Your task to perform on an android device: Search for pizza restaurants on Maps Image 0: 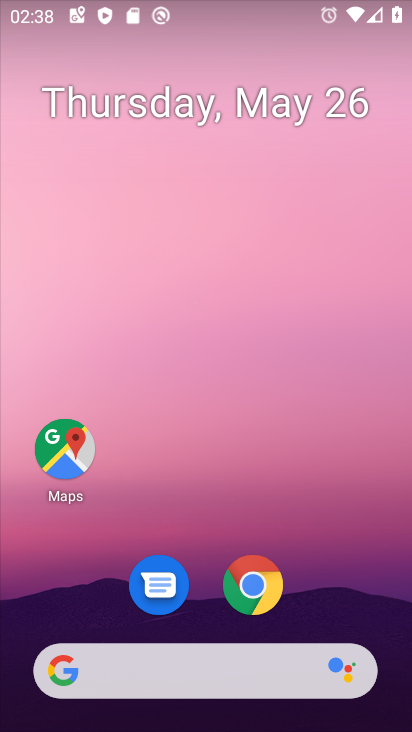
Step 0: click (68, 442)
Your task to perform on an android device: Search for pizza restaurants on Maps Image 1: 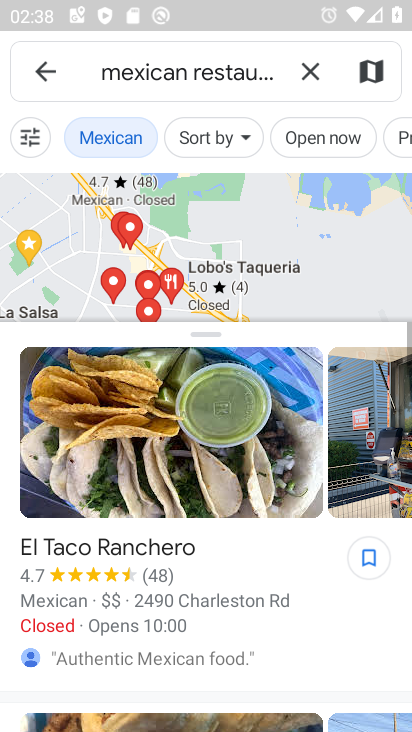
Step 1: click (309, 68)
Your task to perform on an android device: Search for pizza restaurants on Maps Image 2: 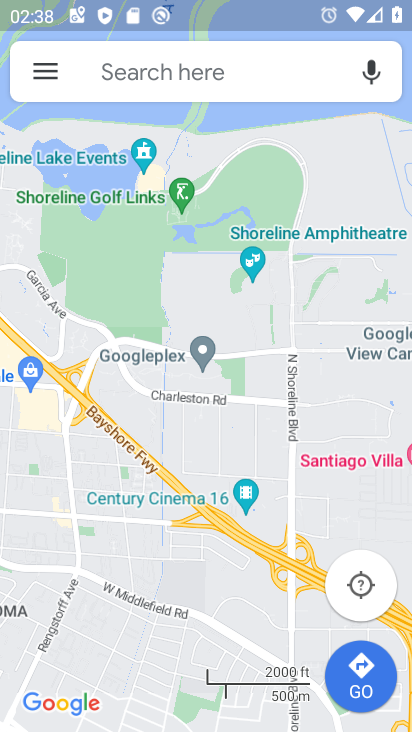
Step 2: click (266, 68)
Your task to perform on an android device: Search for pizza restaurants on Maps Image 3: 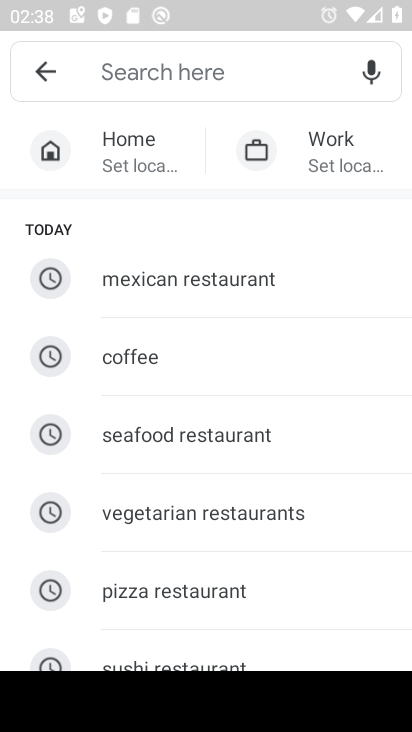
Step 3: click (206, 583)
Your task to perform on an android device: Search for pizza restaurants on Maps Image 4: 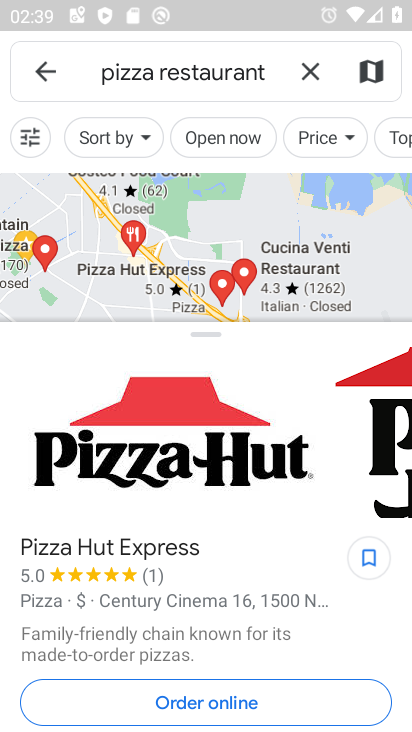
Step 4: task complete